Your task to perform on an android device: open app "Skype" (install if not already installed), go to login, and select forgot password Image 0: 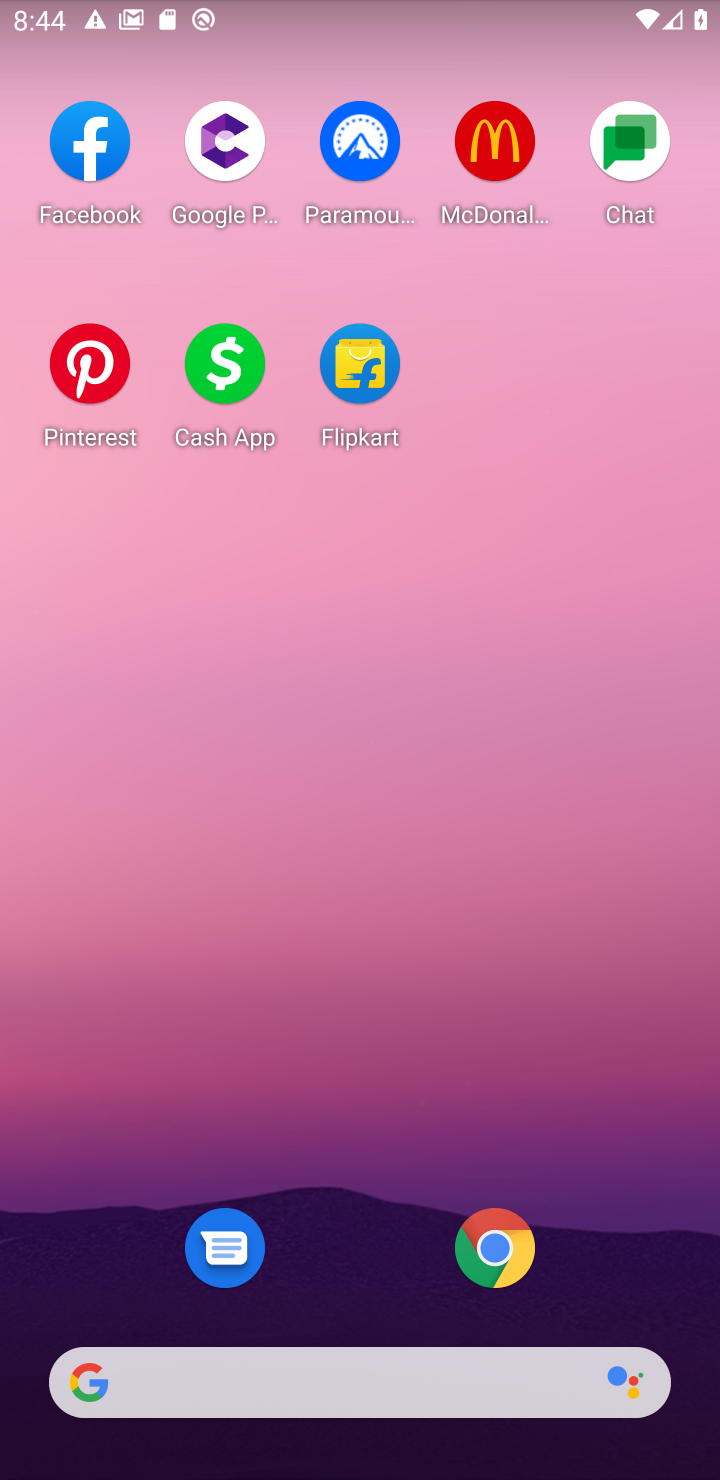
Step 0: drag from (375, 1325) to (372, 201)
Your task to perform on an android device: open app "Skype" (install if not already installed), go to login, and select forgot password Image 1: 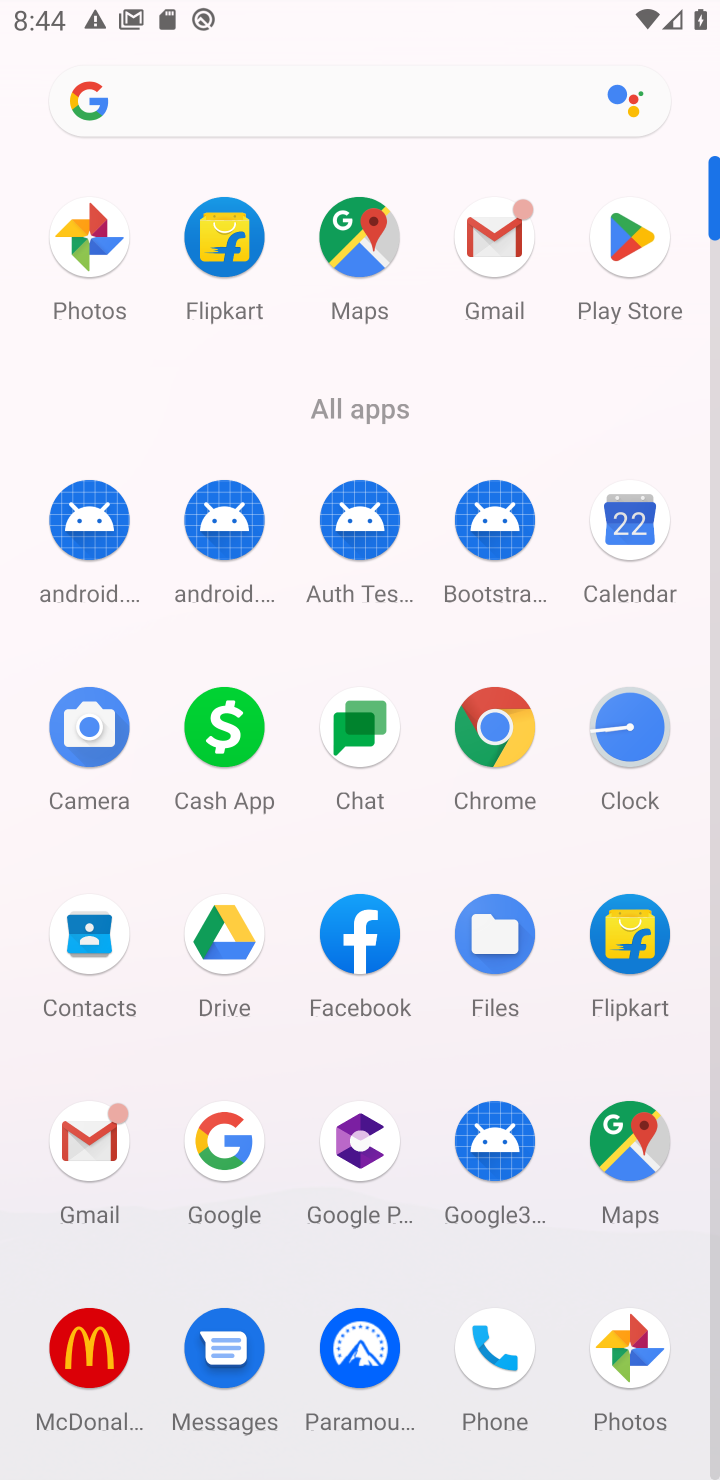
Step 1: click (627, 231)
Your task to perform on an android device: open app "Skype" (install if not already installed), go to login, and select forgot password Image 2: 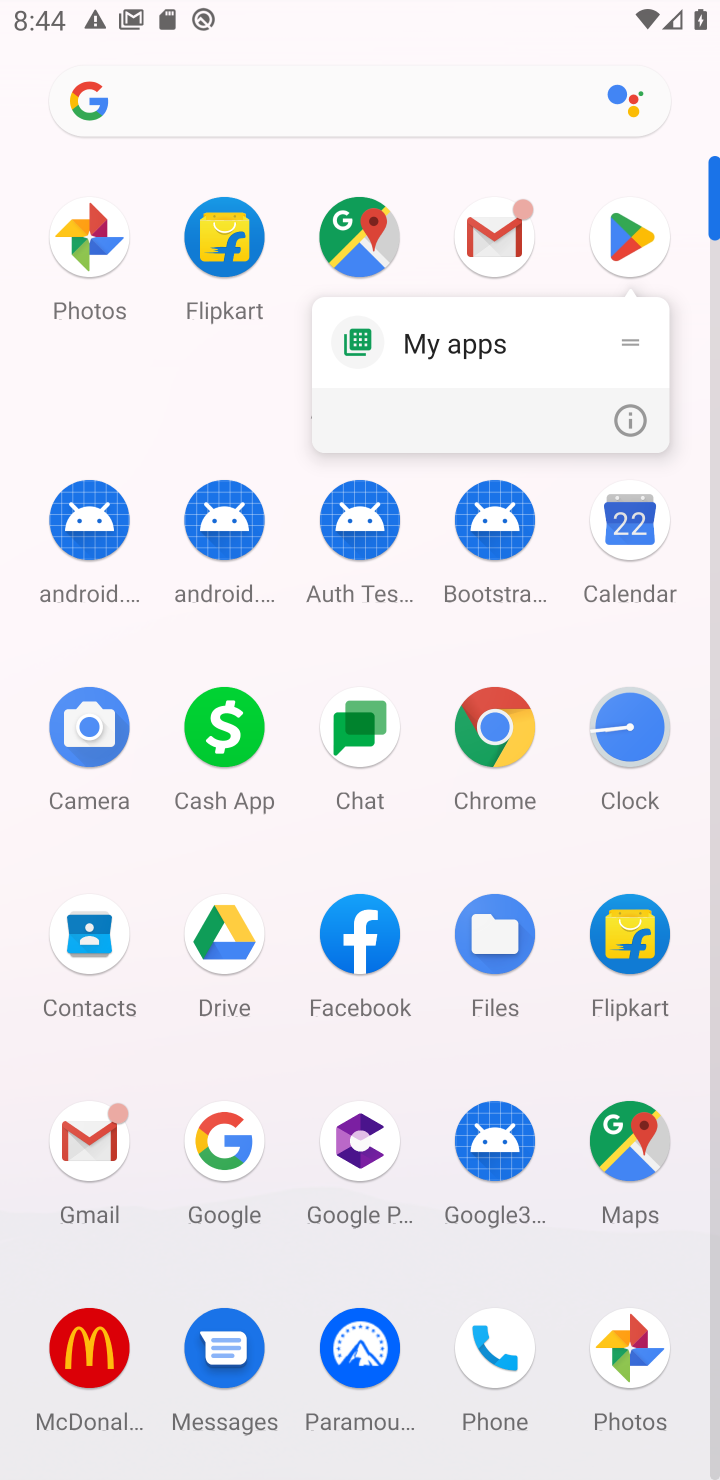
Step 2: click (626, 235)
Your task to perform on an android device: open app "Skype" (install if not already installed), go to login, and select forgot password Image 3: 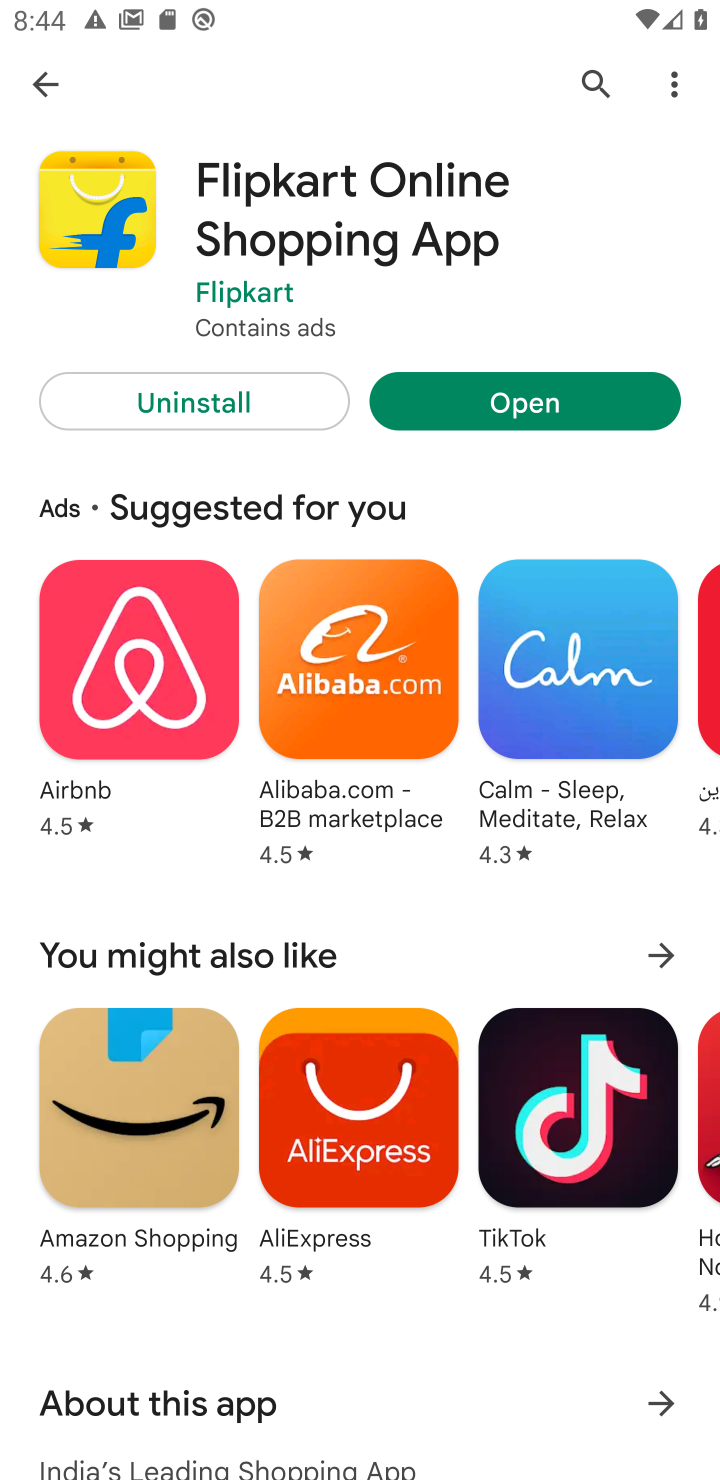
Step 3: click (592, 77)
Your task to perform on an android device: open app "Skype" (install if not already installed), go to login, and select forgot password Image 4: 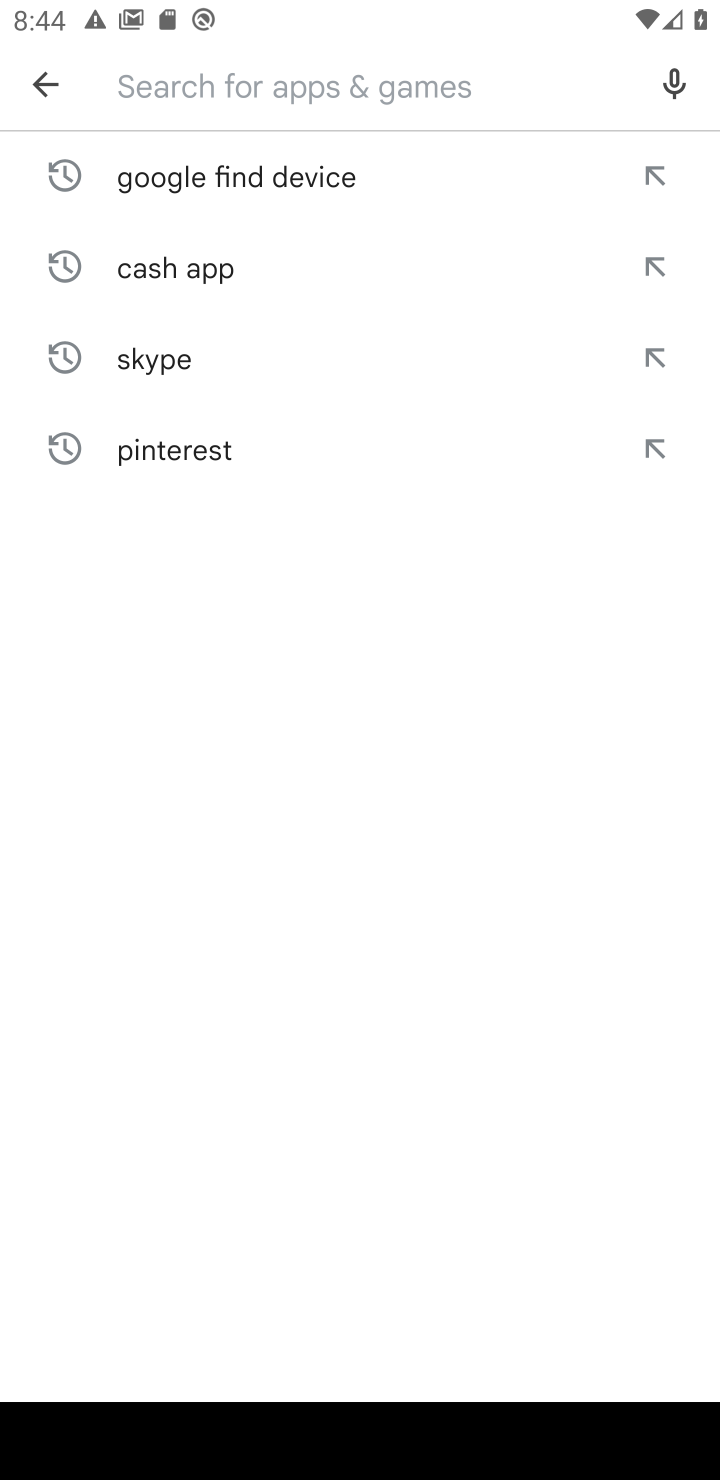
Step 4: type "Skype"
Your task to perform on an android device: open app "Skype" (install if not already installed), go to login, and select forgot password Image 5: 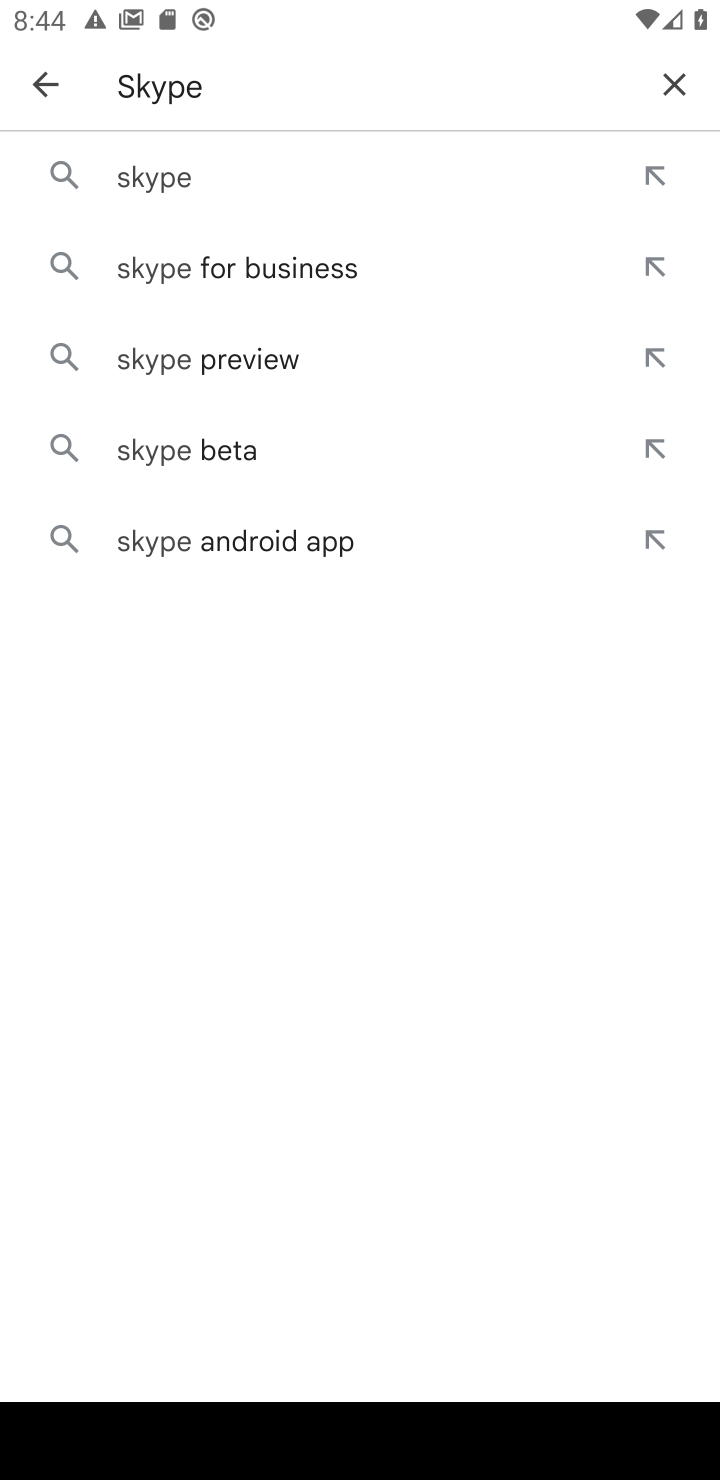
Step 5: click (163, 185)
Your task to perform on an android device: open app "Skype" (install if not already installed), go to login, and select forgot password Image 6: 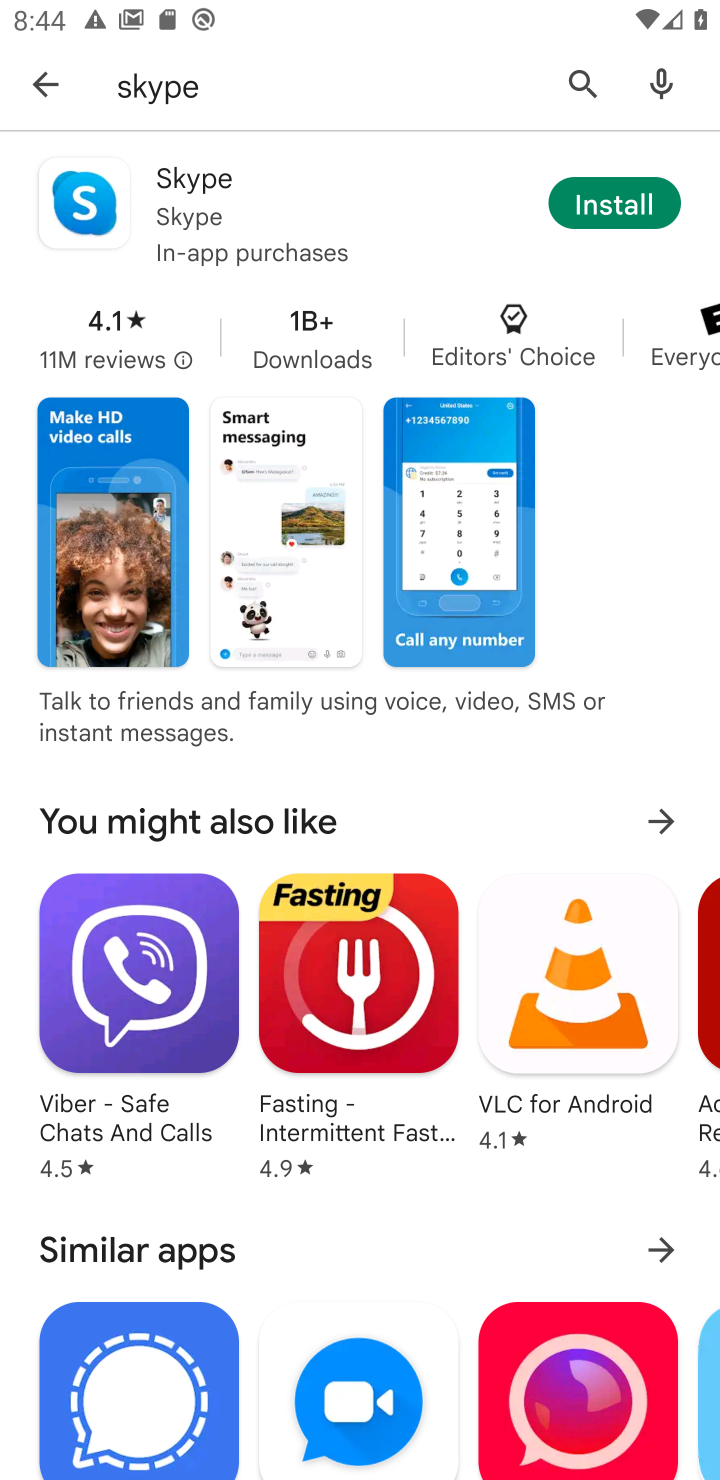
Step 6: click (643, 200)
Your task to perform on an android device: open app "Skype" (install if not already installed), go to login, and select forgot password Image 7: 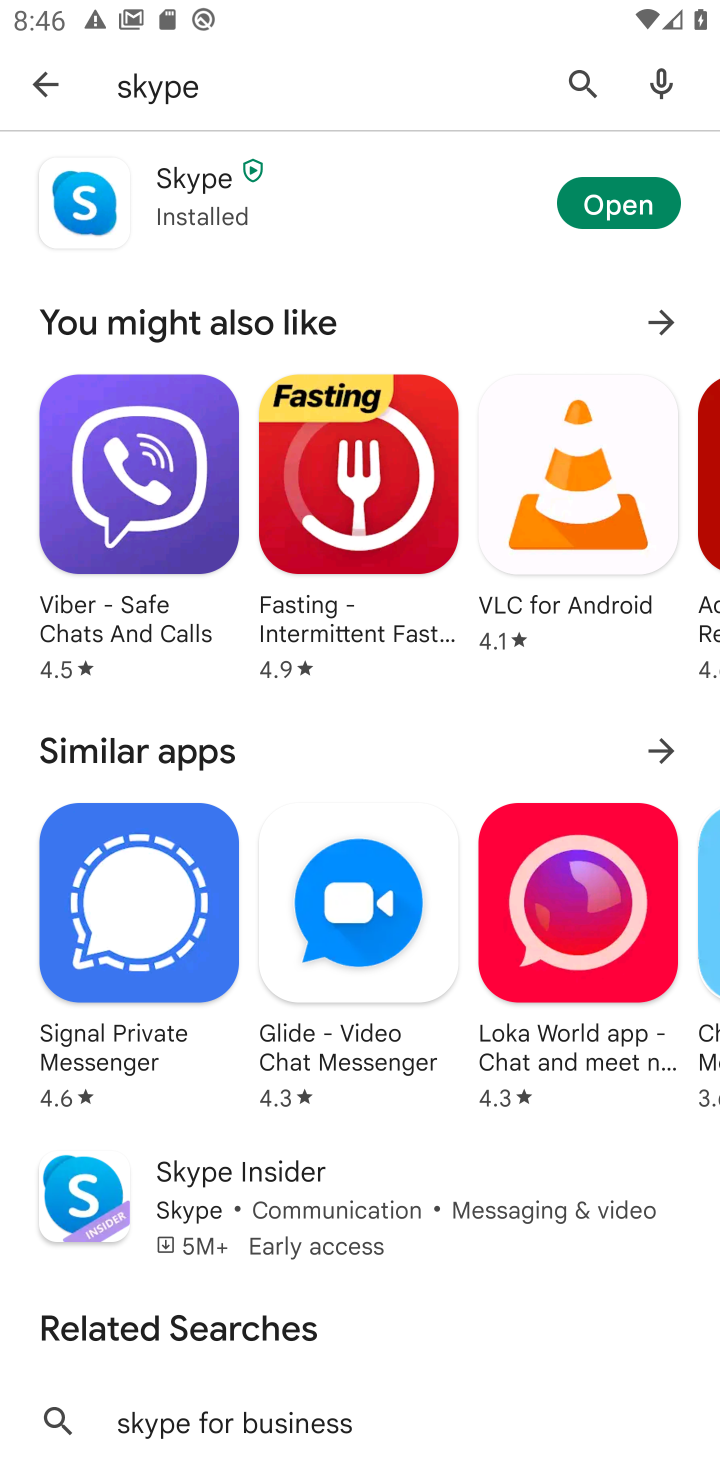
Step 7: click (628, 201)
Your task to perform on an android device: open app "Skype" (install if not already installed), go to login, and select forgot password Image 8: 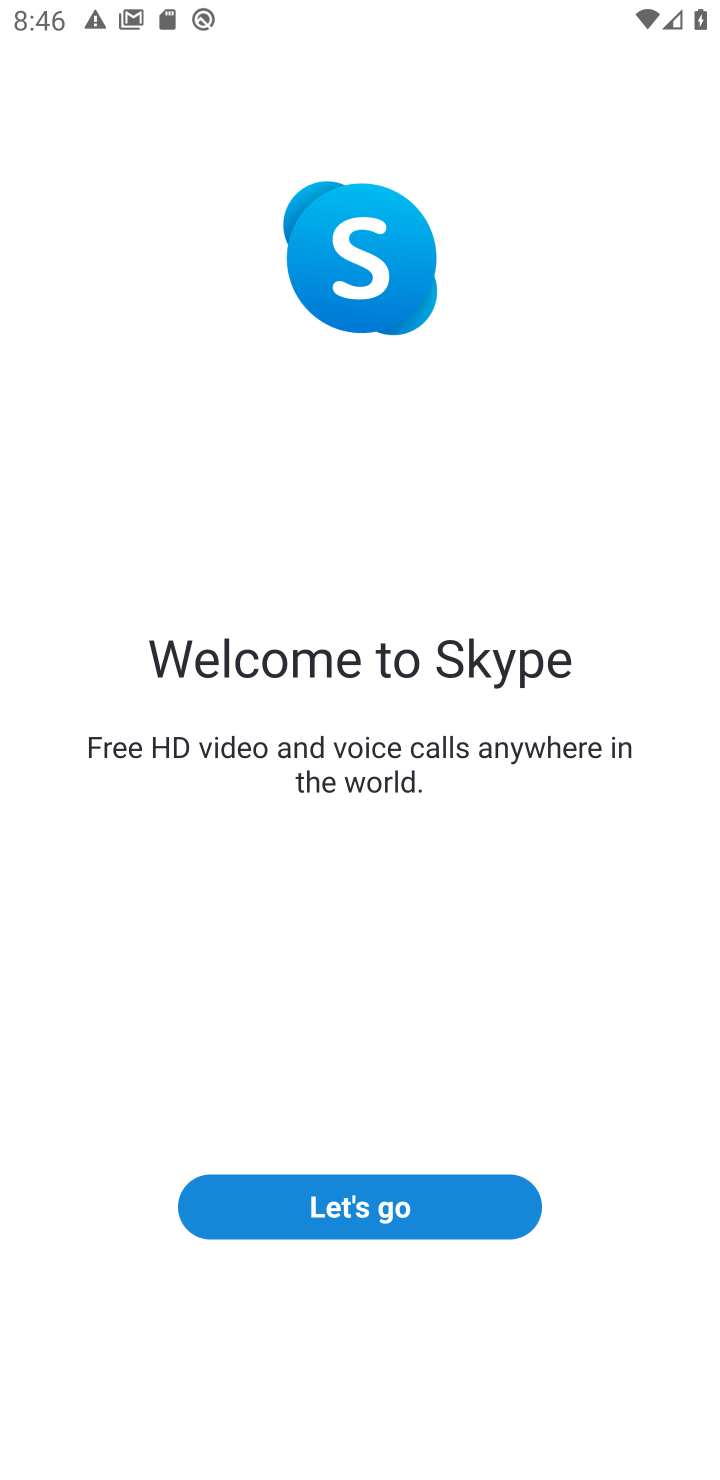
Step 8: click (416, 1223)
Your task to perform on an android device: open app "Skype" (install if not already installed), go to login, and select forgot password Image 9: 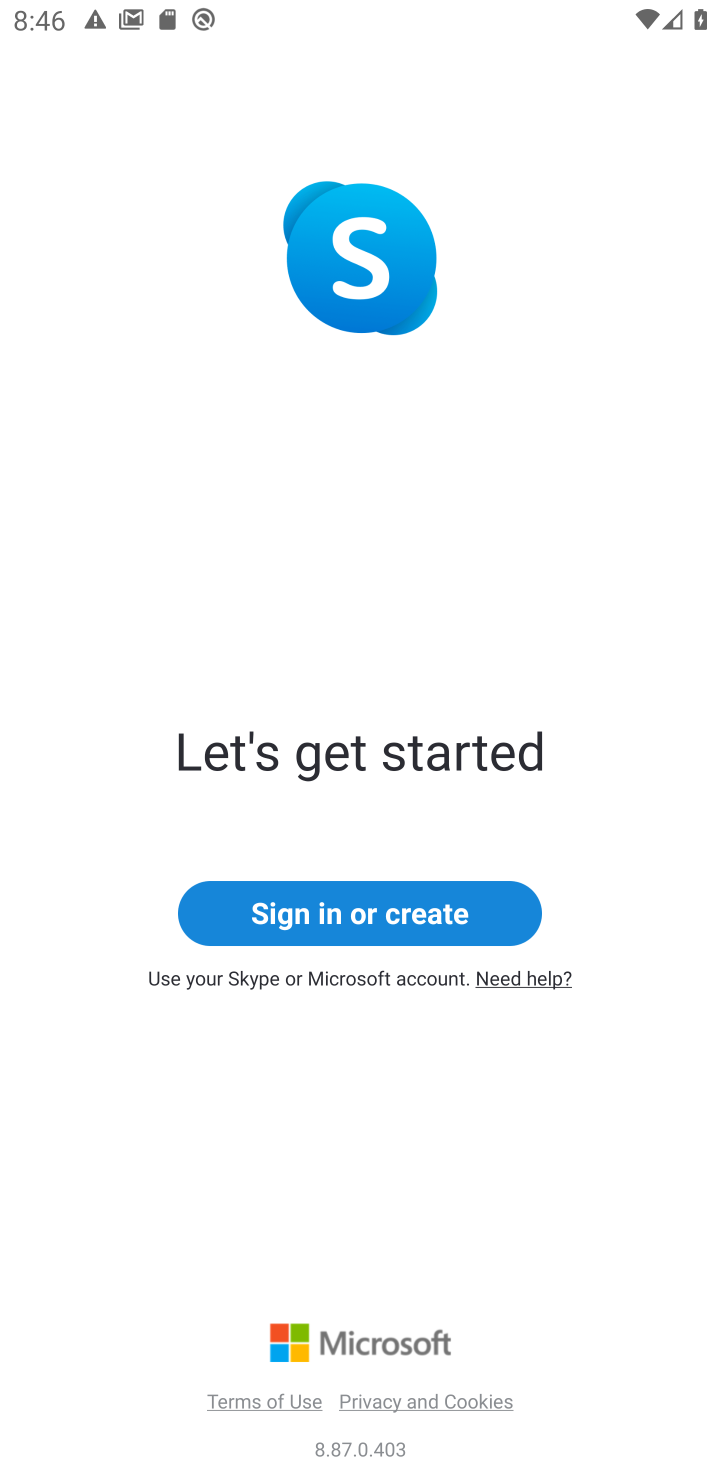
Step 9: click (374, 923)
Your task to perform on an android device: open app "Skype" (install if not already installed), go to login, and select forgot password Image 10: 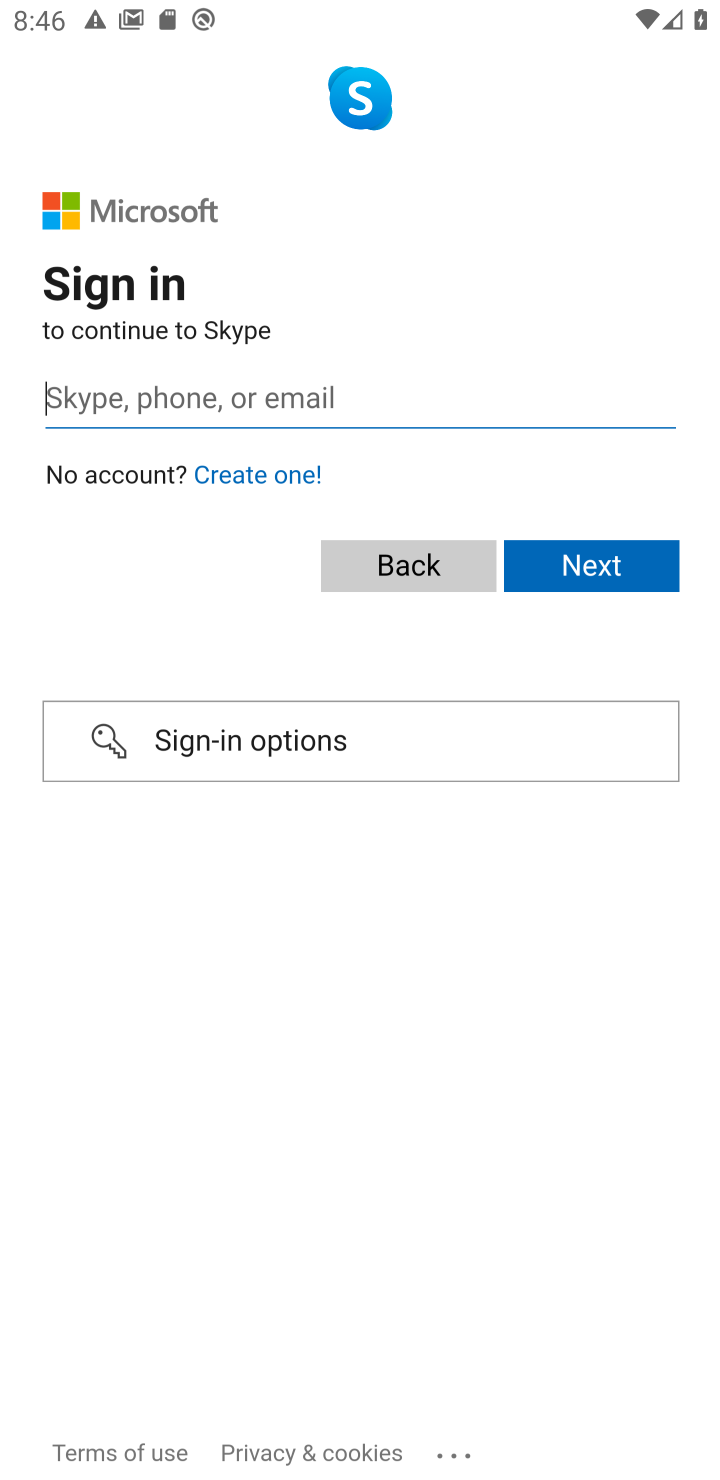
Step 10: click (267, 764)
Your task to perform on an android device: open app "Skype" (install if not already installed), go to login, and select forgot password Image 11: 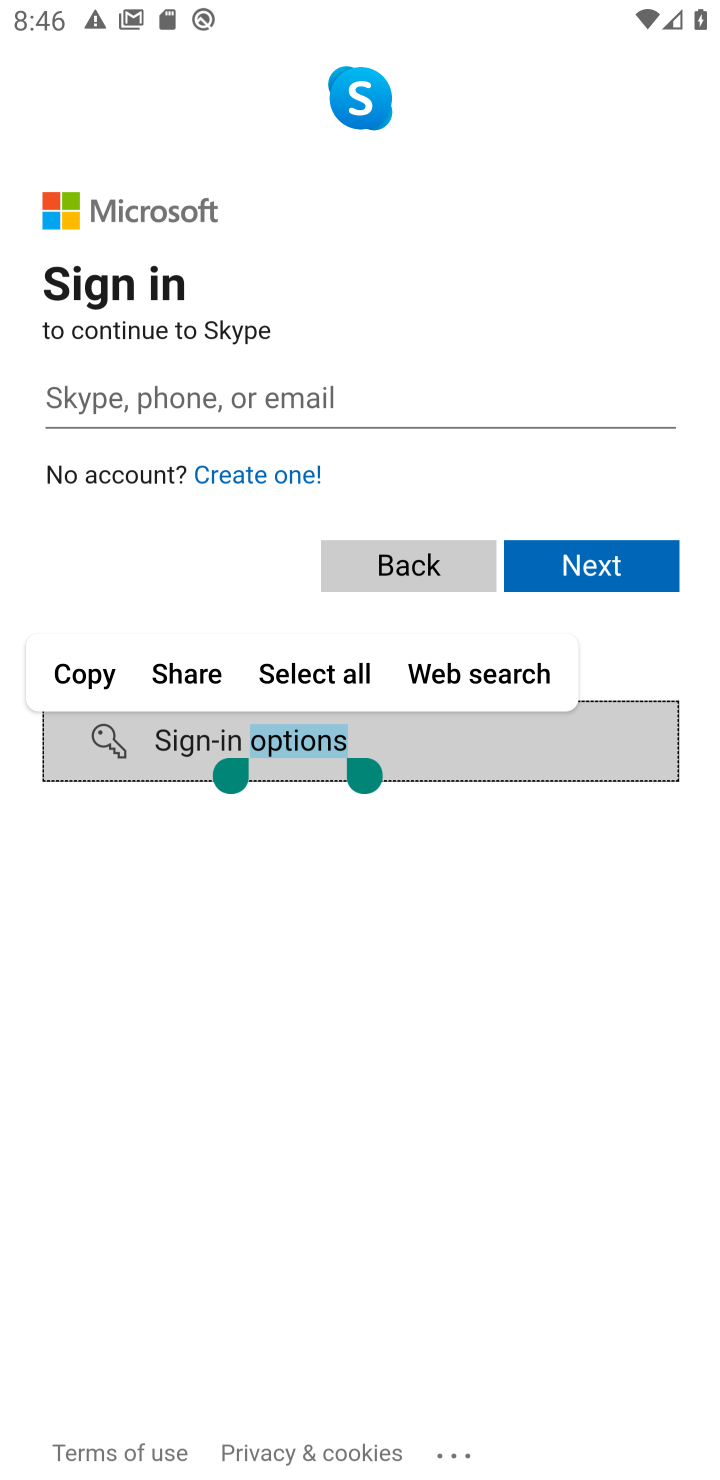
Step 11: click (110, 896)
Your task to perform on an android device: open app "Skype" (install if not already installed), go to login, and select forgot password Image 12: 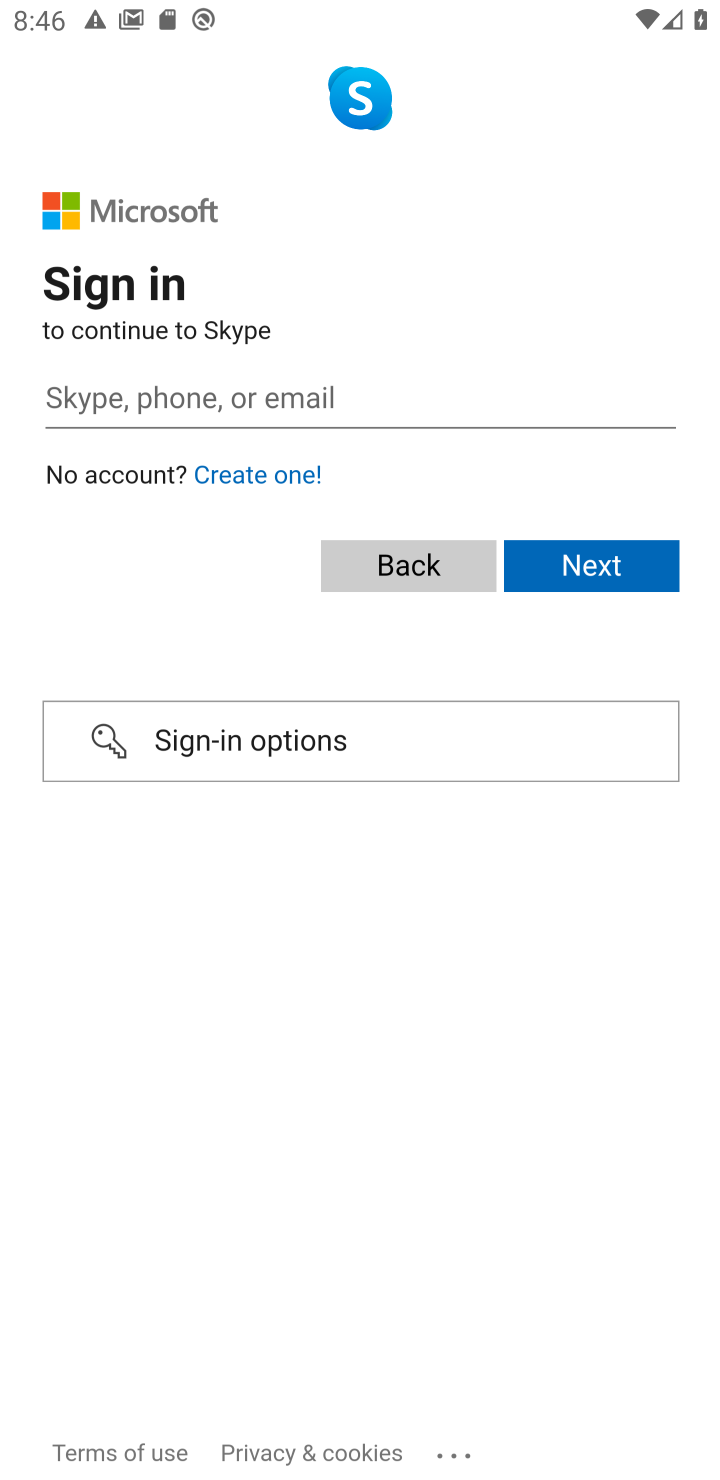
Step 12: click (134, 742)
Your task to perform on an android device: open app "Skype" (install if not already installed), go to login, and select forgot password Image 13: 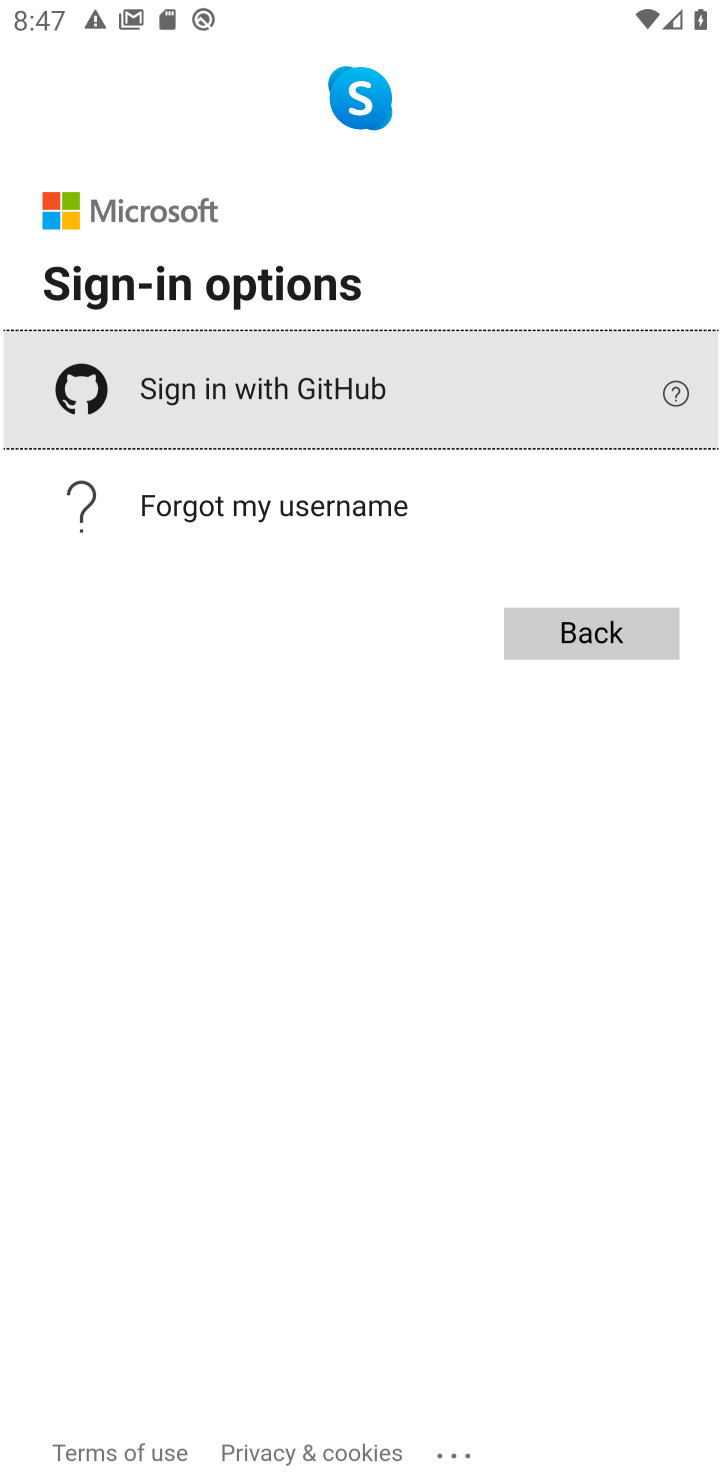
Step 13: click (310, 509)
Your task to perform on an android device: open app "Skype" (install if not already installed), go to login, and select forgot password Image 14: 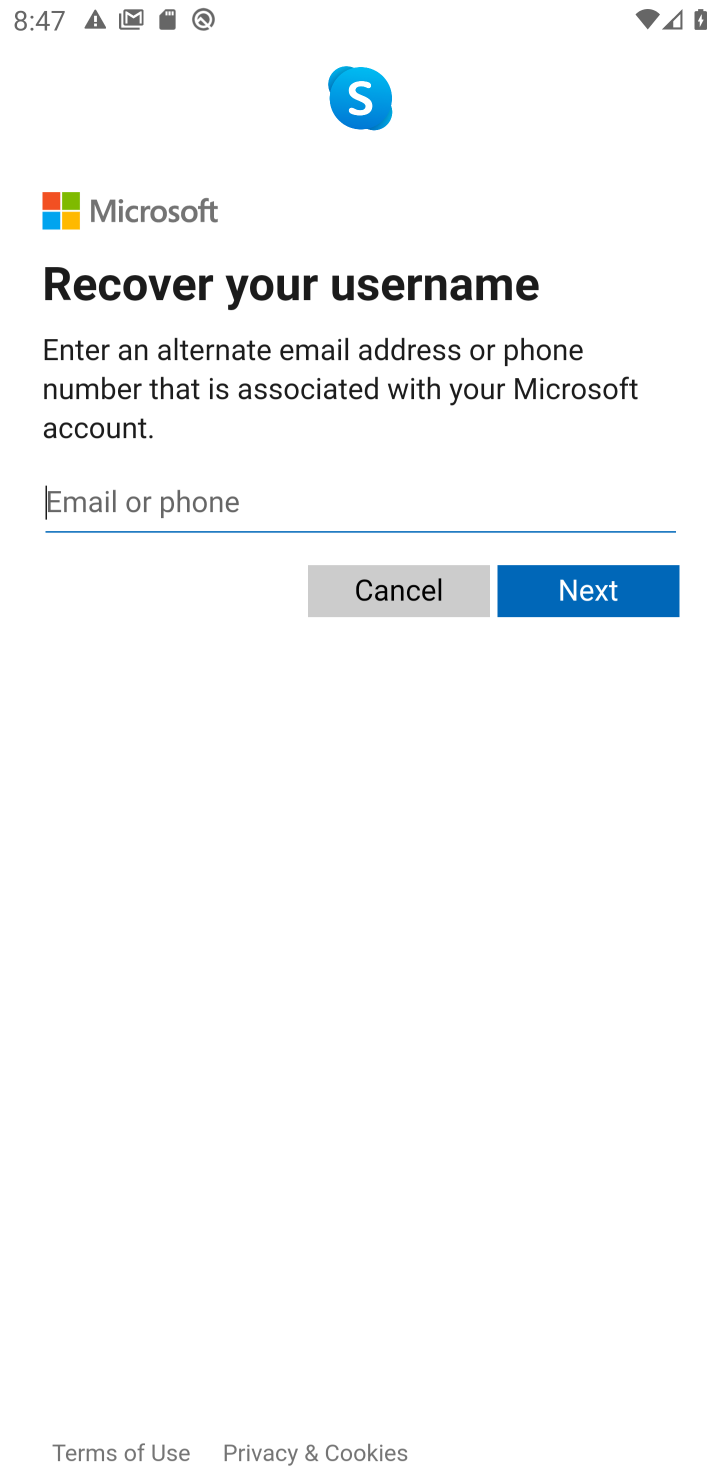
Step 14: task complete